Your task to perform on an android device: toggle notification dots Image 0: 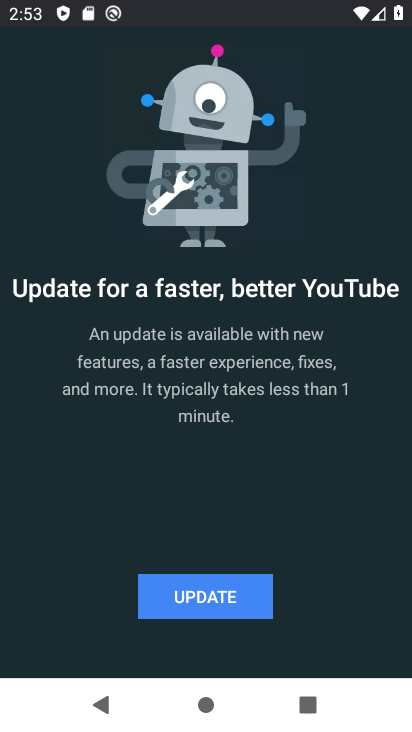
Step 0: press home button
Your task to perform on an android device: toggle notification dots Image 1: 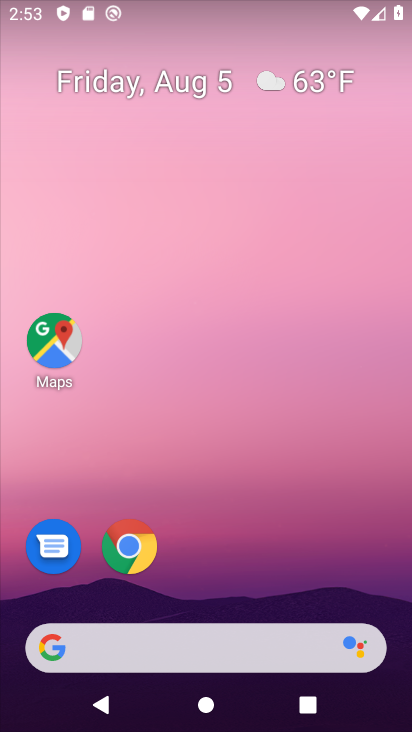
Step 1: drag from (316, 550) to (370, 155)
Your task to perform on an android device: toggle notification dots Image 2: 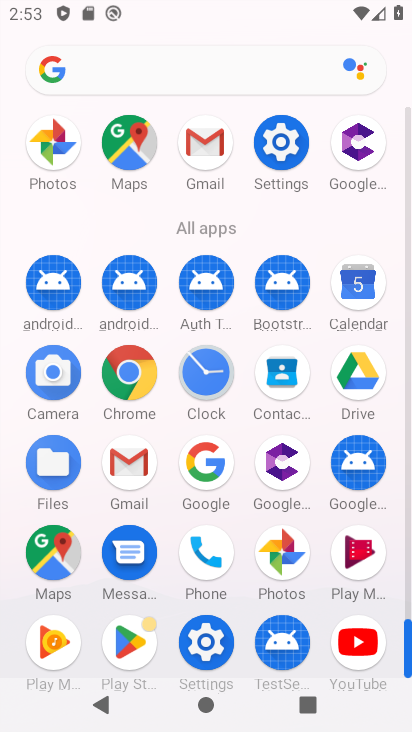
Step 2: click (287, 147)
Your task to perform on an android device: toggle notification dots Image 3: 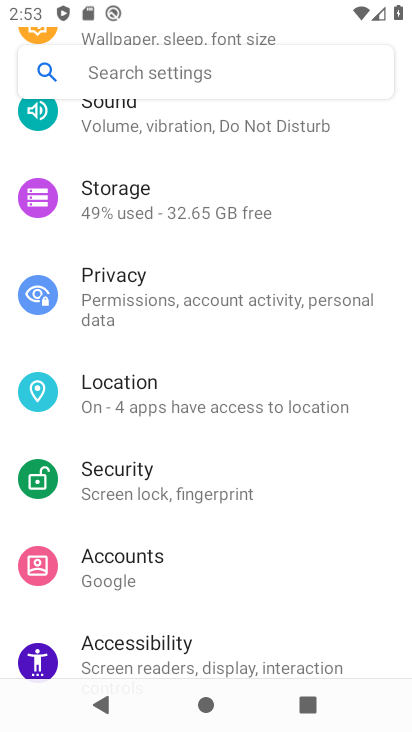
Step 3: drag from (366, 482) to (374, 348)
Your task to perform on an android device: toggle notification dots Image 4: 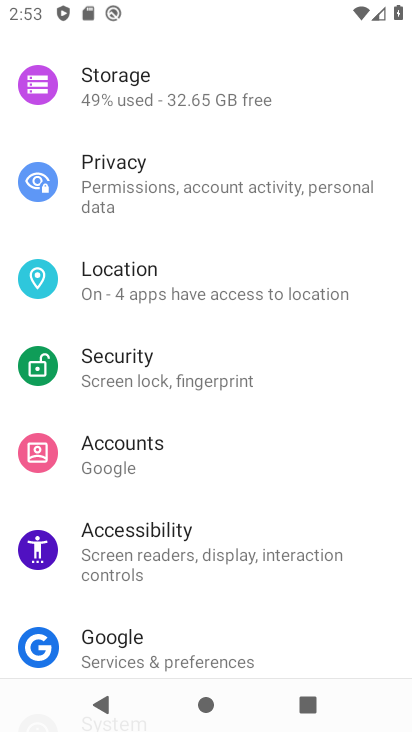
Step 4: drag from (350, 472) to (364, 364)
Your task to perform on an android device: toggle notification dots Image 5: 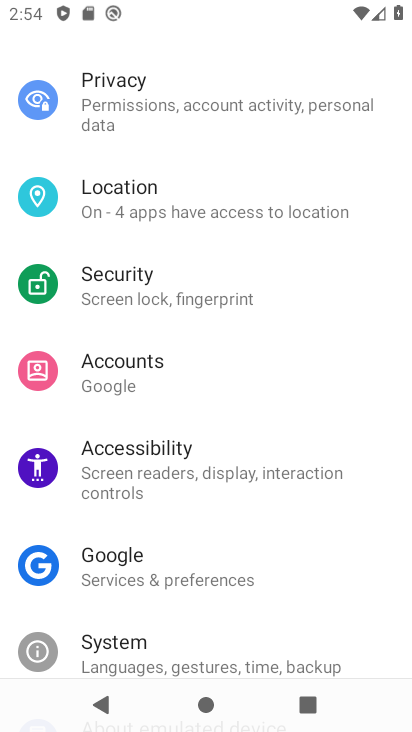
Step 5: drag from (342, 512) to (362, 383)
Your task to perform on an android device: toggle notification dots Image 6: 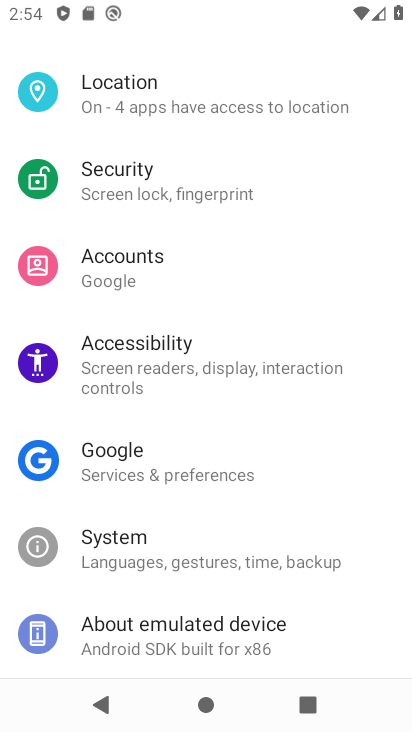
Step 6: drag from (338, 507) to (359, 347)
Your task to perform on an android device: toggle notification dots Image 7: 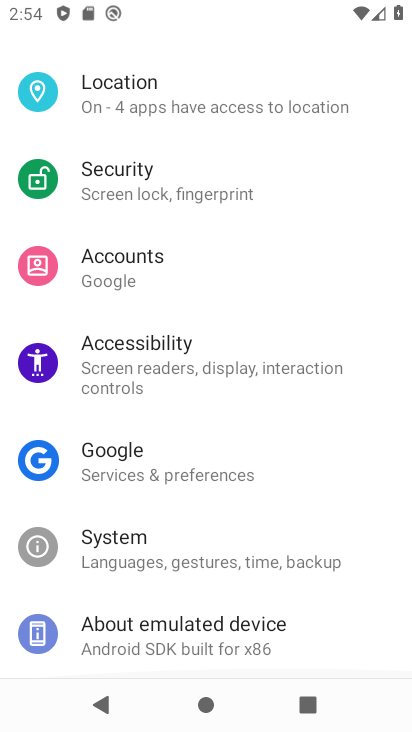
Step 7: drag from (367, 263) to (346, 405)
Your task to perform on an android device: toggle notification dots Image 8: 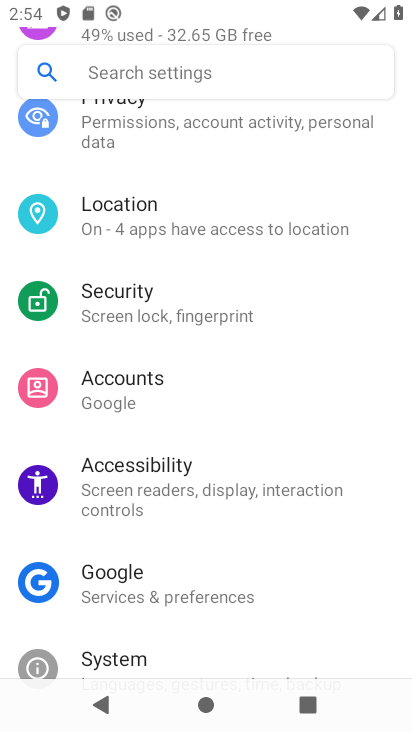
Step 8: drag from (370, 208) to (361, 336)
Your task to perform on an android device: toggle notification dots Image 9: 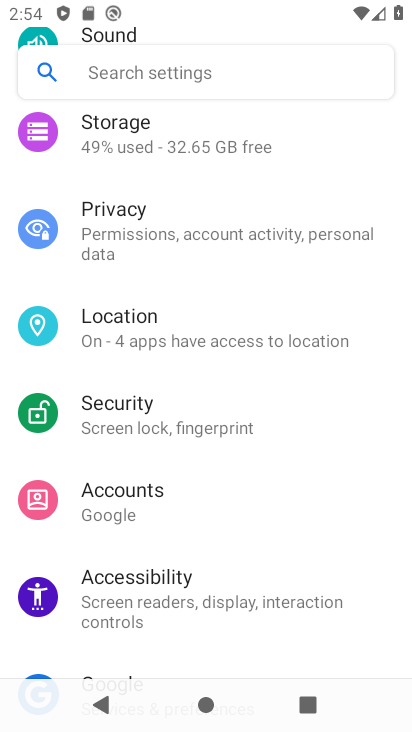
Step 9: drag from (367, 184) to (364, 296)
Your task to perform on an android device: toggle notification dots Image 10: 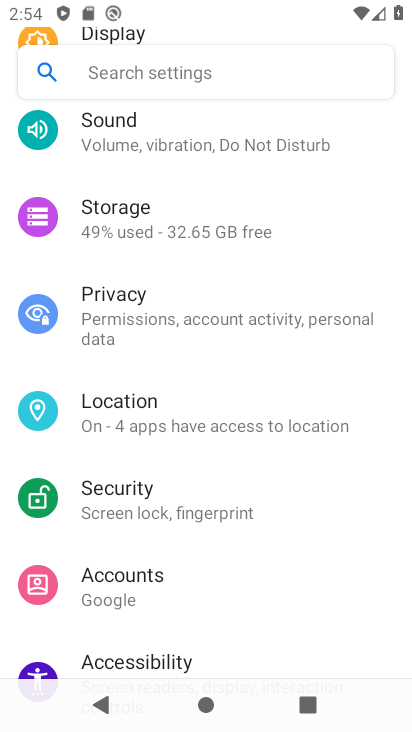
Step 10: drag from (382, 209) to (364, 348)
Your task to perform on an android device: toggle notification dots Image 11: 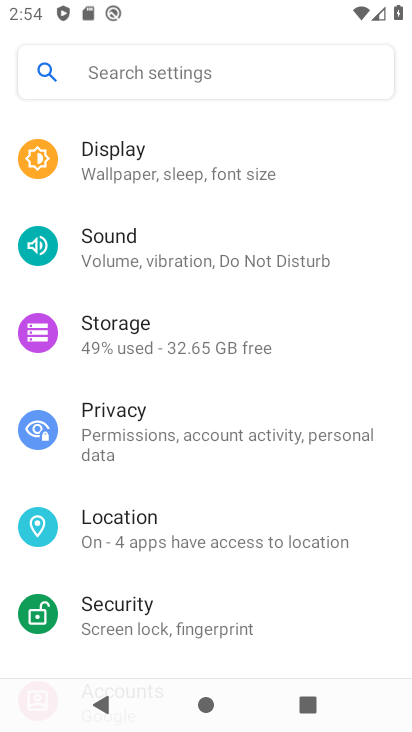
Step 11: drag from (370, 235) to (355, 372)
Your task to perform on an android device: toggle notification dots Image 12: 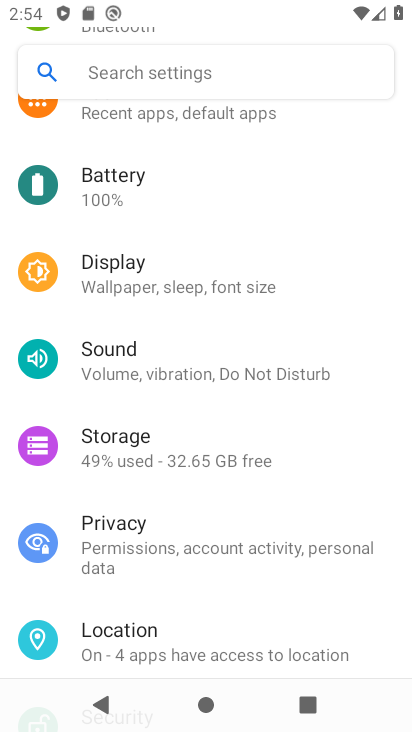
Step 12: drag from (369, 259) to (356, 408)
Your task to perform on an android device: toggle notification dots Image 13: 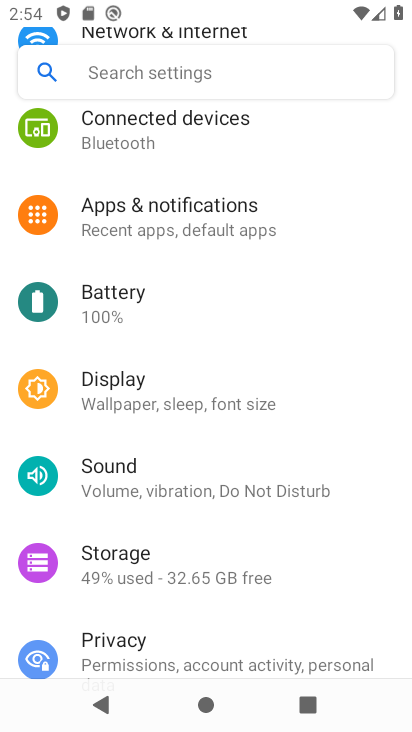
Step 13: drag from (357, 183) to (358, 315)
Your task to perform on an android device: toggle notification dots Image 14: 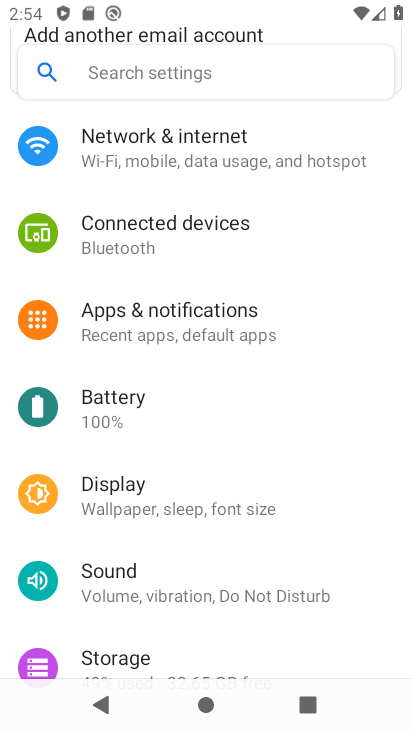
Step 14: click (254, 325)
Your task to perform on an android device: toggle notification dots Image 15: 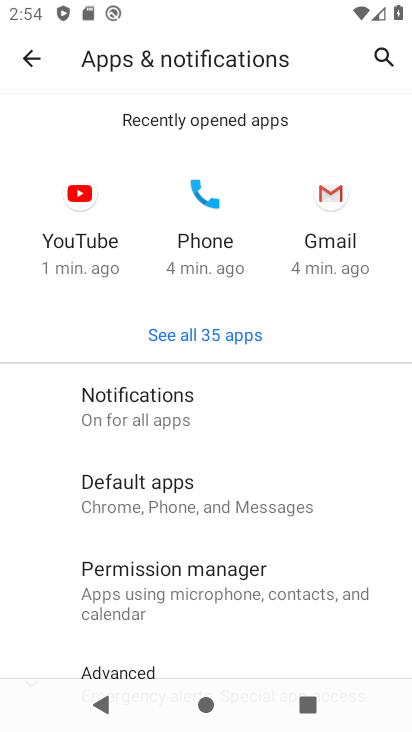
Step 15: click (180, 415)
Your task to perform on an android device: toggle notification dots Image 16: 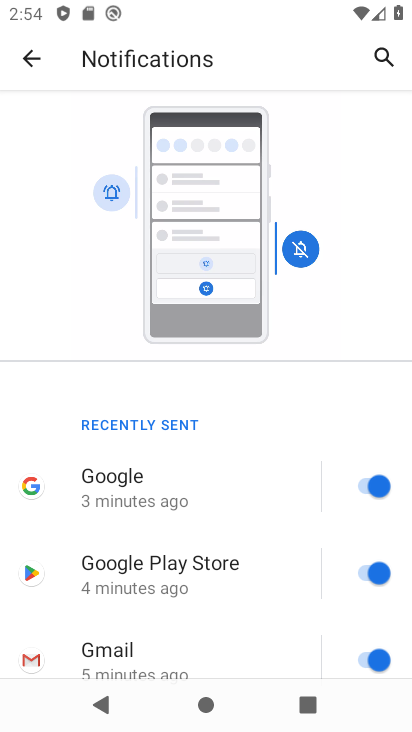
Step 16: drag from (261, 488) to (283, 347)
Your task to perform on an android device: toggle notification dots Image 17: 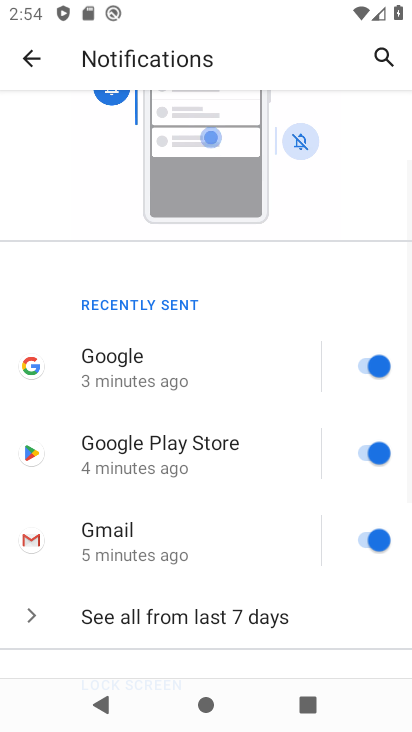
Step 17: drag from (249, 505) to (280, 342)
Your task to perform on an android device: toggle notification dots Image 18: 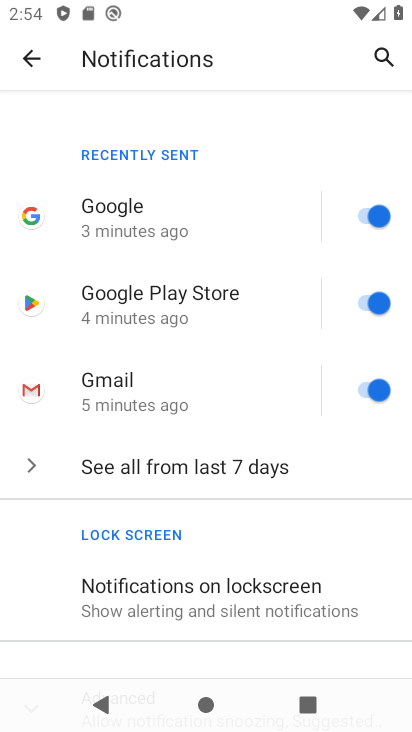
Step 18: drag from (279, 481) to (294, 365)
Your task to perform on an android device: toggle notification dots Image 19: 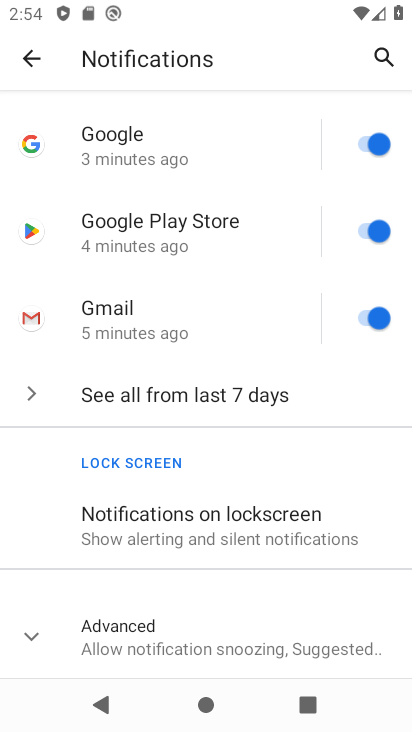
Step 19: click (236, 611)
Your task to perform on an android device: toggle notification dots Image 20: 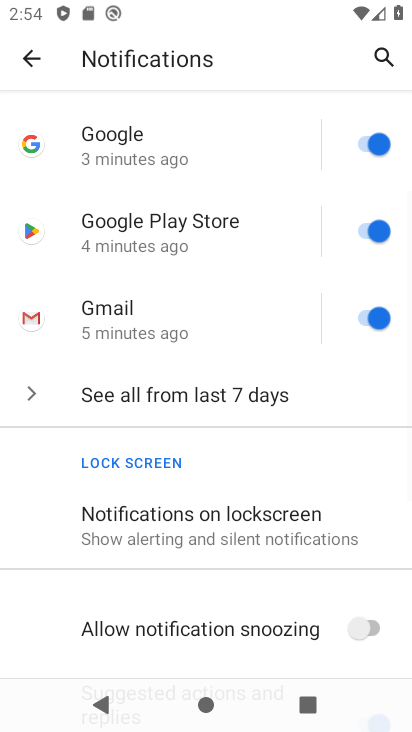
Step 20: task complete